Your task to perform on an android device: turn on showing notifications on the lock screen Image 0: 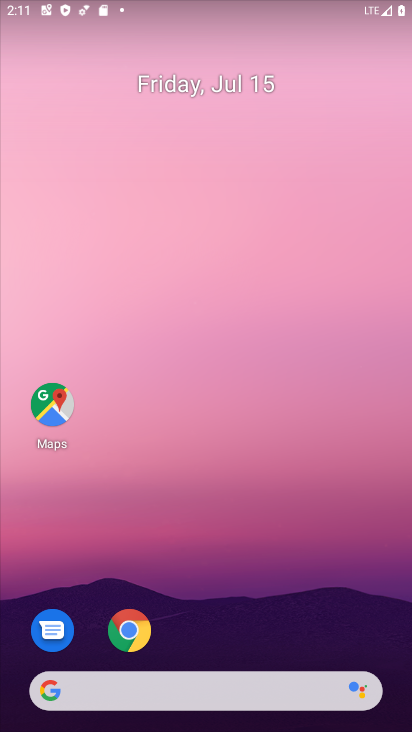
Step 0: press home button
Your task to perform on an android device: turn on showing notifications on the lock screen Image 1: 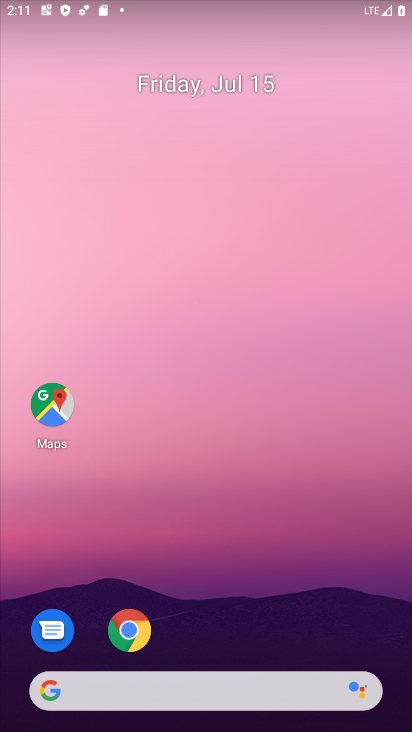
Step 1: drag from (251, 587) to (210, 51)
Your task to perform on an android device: turn on showing notifications on the lock screen Image 2: 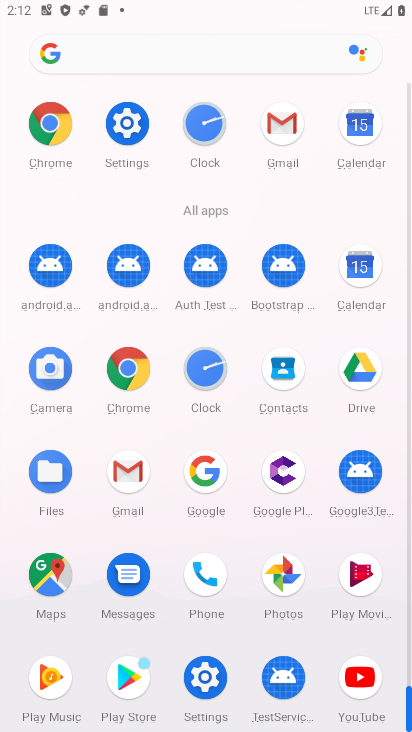
Step 2: click (117, 135)
Your task to perform on an android device: turn on showing notifications on the lock screen Image 3: 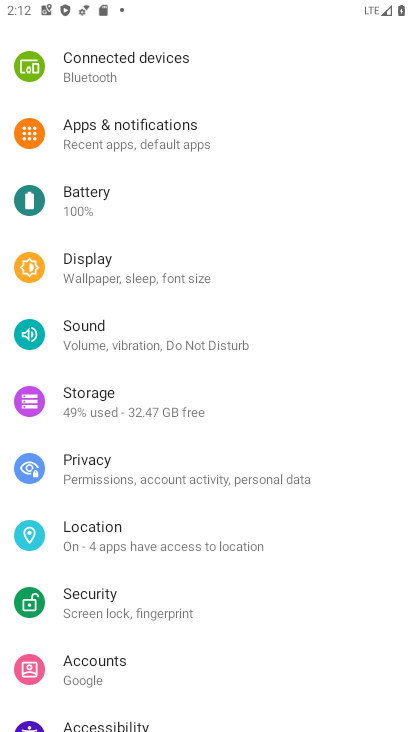
Step 3: click (85, 128)
Your task to perform on an android device: turn on showing notifications on the lock screen Image 4: 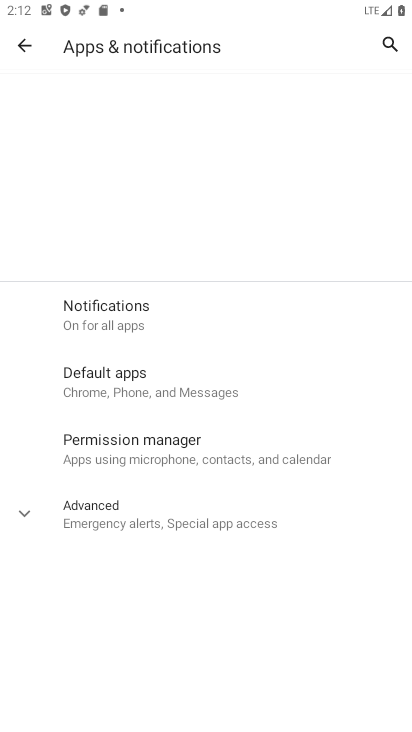
Step 4: click (135, 311)
Your task to perform on an android device: turn on showing notifications on the lock screen Image 5: 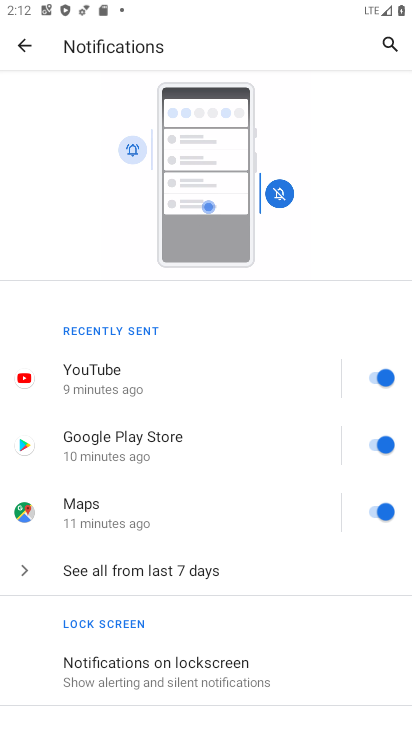
Step 5: click (179, 642)
Your task to perform on an android device: turn on showing notifications on the lock screen Image 6: 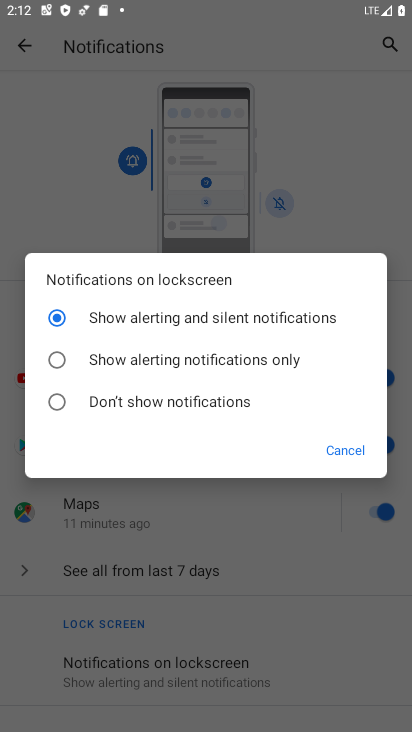
Step 6: task complete